Your task to perform on an android device: add a label to a message in the gmail app Image 0: 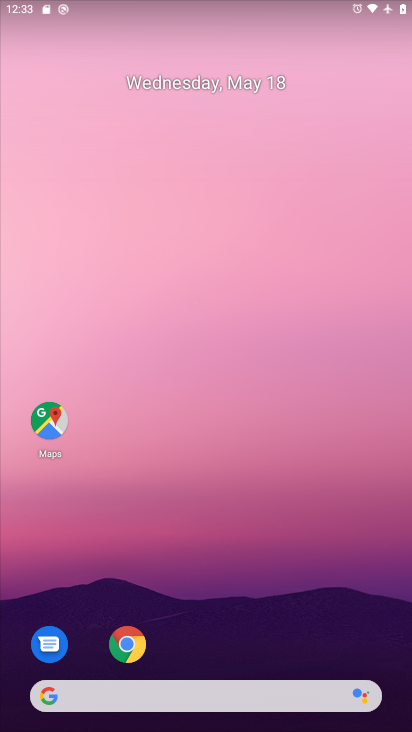
Step 0: drag from (274, 654) to (338, 172)
Your task to perform on an android device: add a label to a message in the gmail app Image 1: 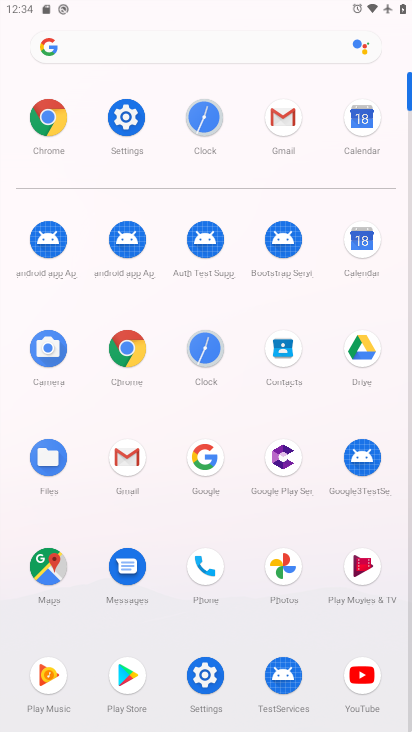
Step 1: click (122, 456)
Your task to perform on an android device: add a label to a message in the gmail app Image 2: 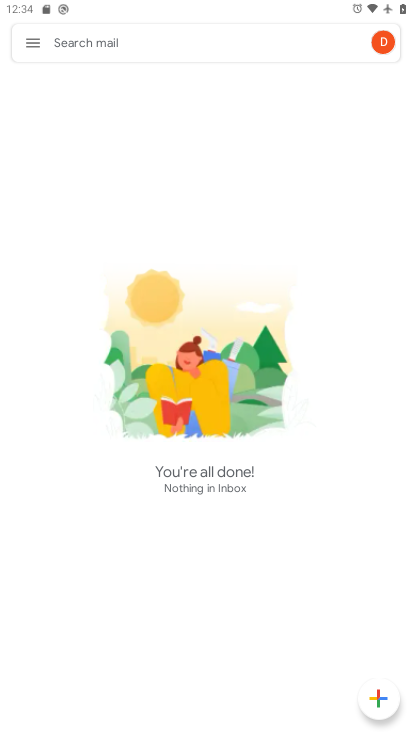
Step 2: task complete